Your task to perform on an android device: Open calendar and show me the fourth week of next month Image 0: 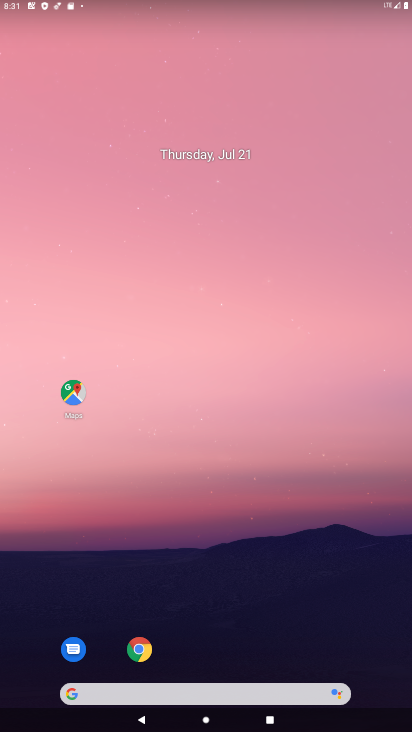
Step 0: drag from (219, 668) to (223, 42)
Your task to perform on an android device: Open calendar and show me the fourth week of next month Image 1: 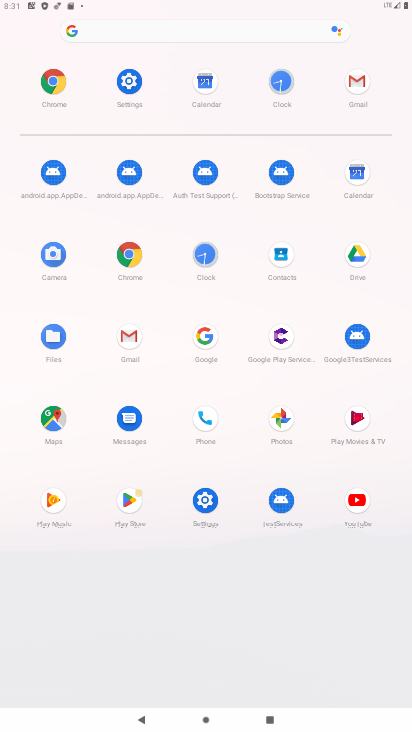
Step 1: click (369, 183)
Your task to perform on an android device: Open calendar and show me the fourth week of next month Image 2: 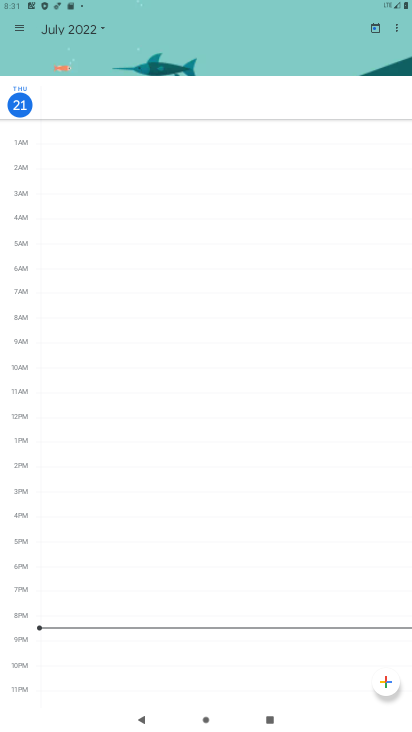
Step 2: click (63, 31)
Your task to perform on an android device: Open calendar and show me the fourth week of next month Image 3: 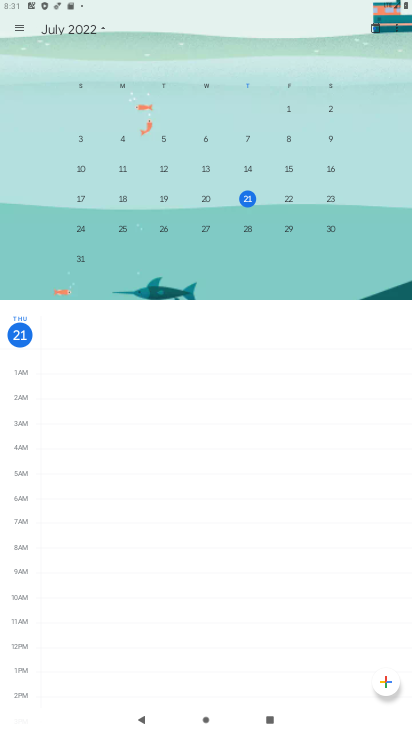
Step 3: drag from (332, 222) to (0, 87)
Your task to perform on an android device: Open calendar and show me the fourth week of next month Image 4: 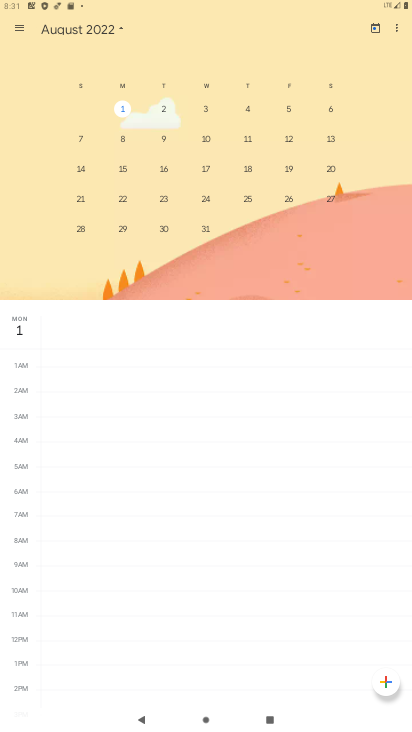
Step 4: click (19, 28)
Your task to perform on an android device: Open calendar and show me the fourth week of next month Image 5: 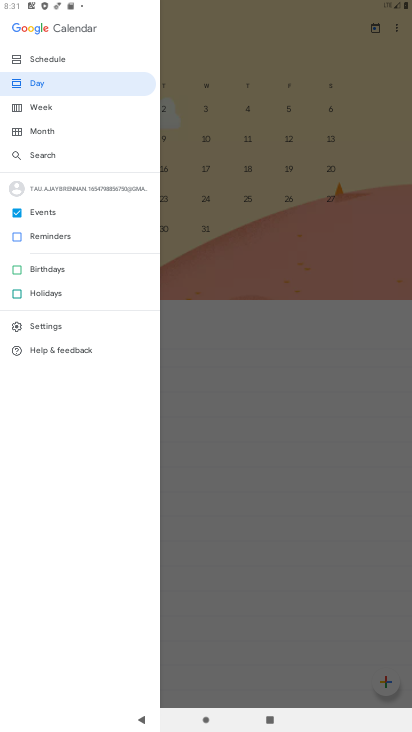
Step 5: click (44, 108)
Your task to perform on an android device: Open calendar and show me the fourth week of next month Image 6: 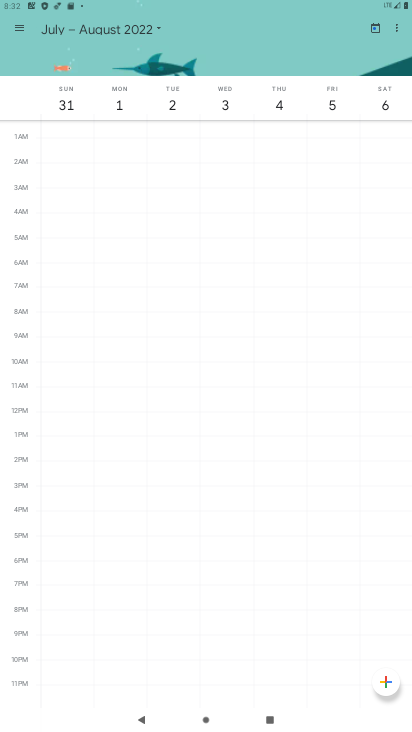
Step 6: task complete